Your task to perform on an android device: open device folders in google photos Image 0: 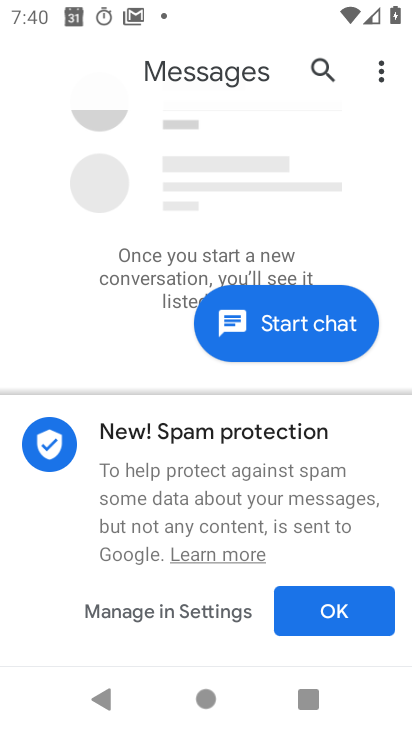
Step 0: press home button
Your task to perform on an android device: open device folders in google photos Image 1: 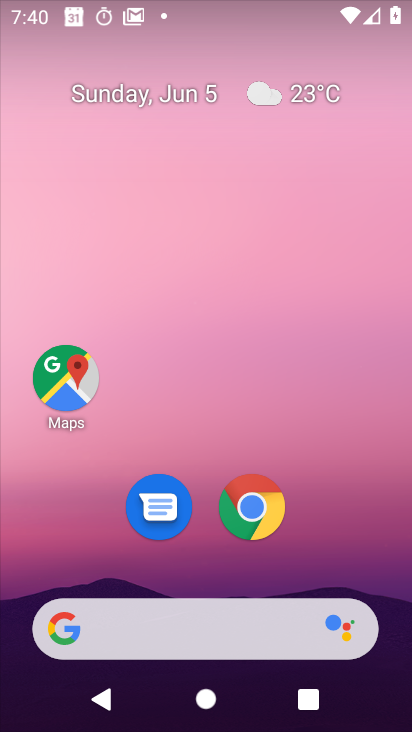
Step 1: drag from (303, 684) to (218, 204)
Your task to perform on an android device: open device folders in google photos Image 2: 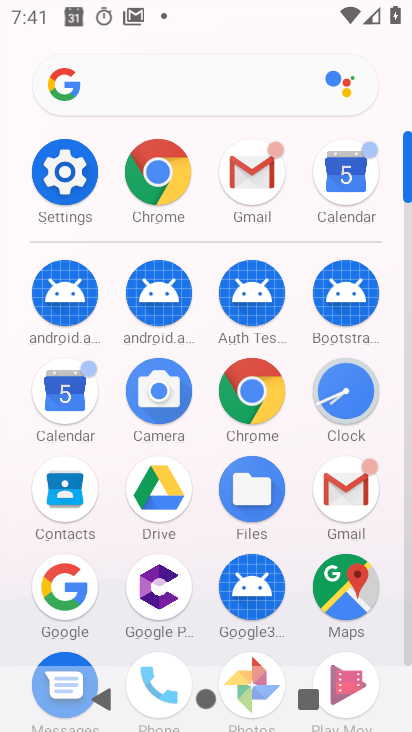
Step 2: click (249, 655)
Your task to perform on an android device: open device folders in google photos Image 3: 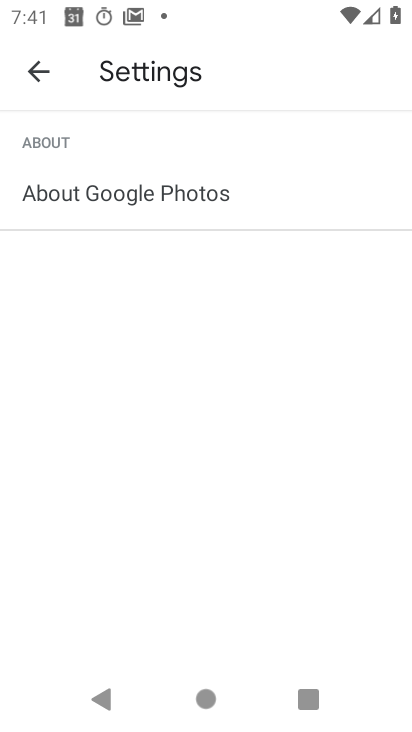
Step 3: click (40, 75)
Your task to perform on an android device: open device folders in google photos Image 4: 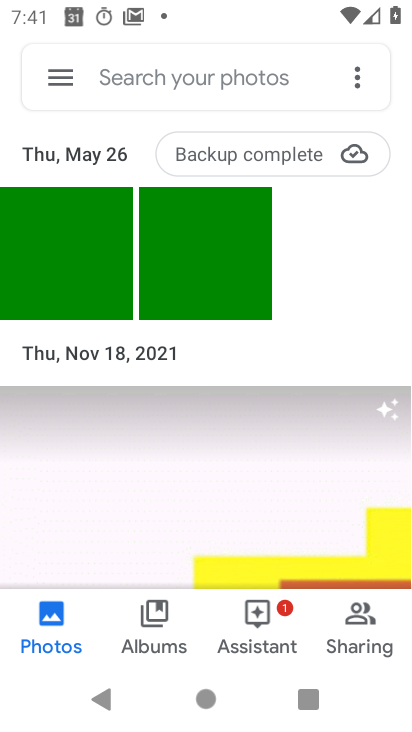
Step 4: click (47, 88)
Your task to perform on an android device: open device folders in google photos Image 5: 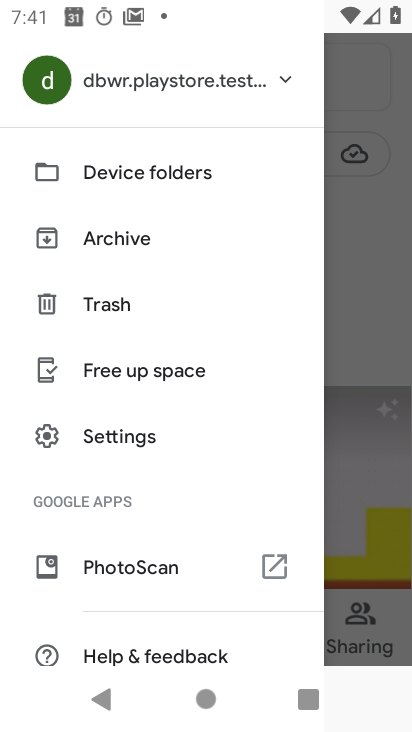
Step 5: click (106, 168)
Your task to perform on an android device: open device folders in google photos Image 6: 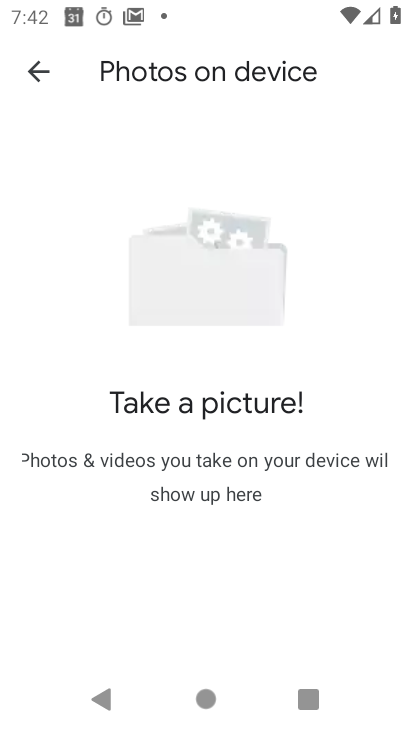
Step 6: task complete